Your task to perform on an android device: Go to network settings Image 0: 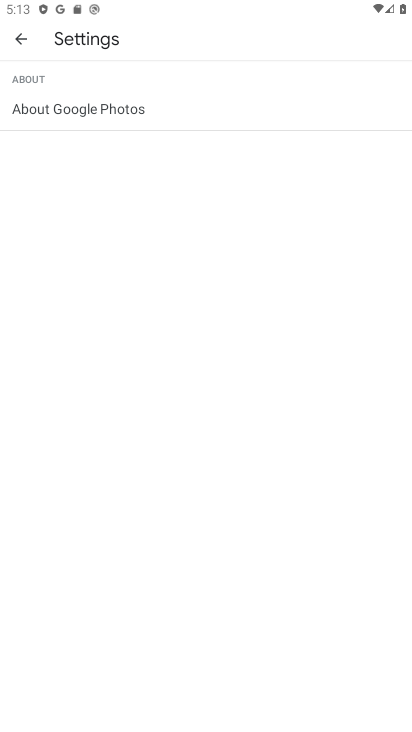
Step 0: press home button
Your task to perform on an android device: Go to network settings Image 1: 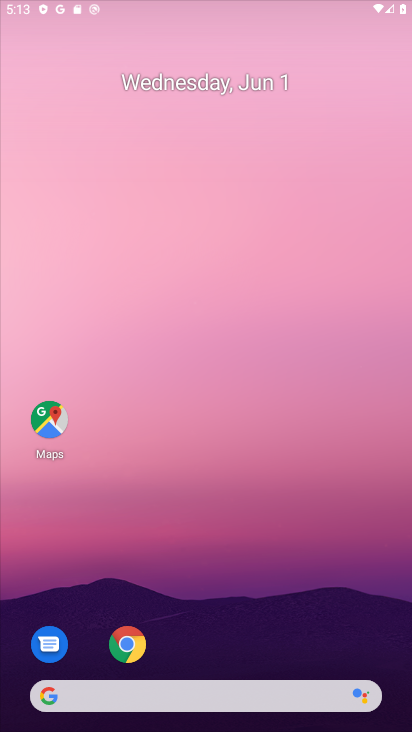
Step 1: drag from (341, 554) to (272, 0)
Your task to perform on an android device: Go to network settings Image 2: 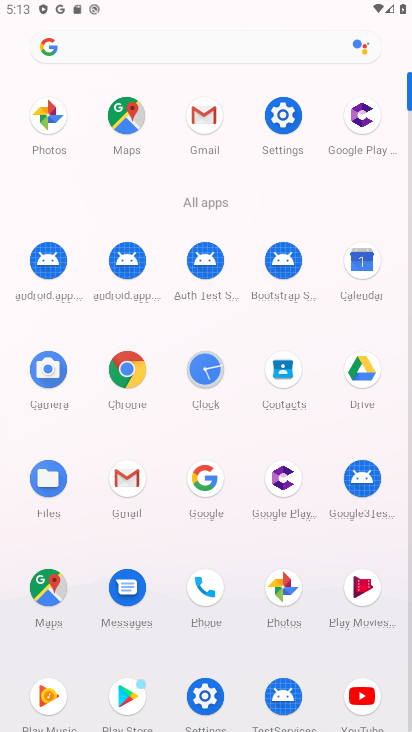
Step 2: click (276, 129)
Your task to perform on an android device: Go to network settings Image 3: 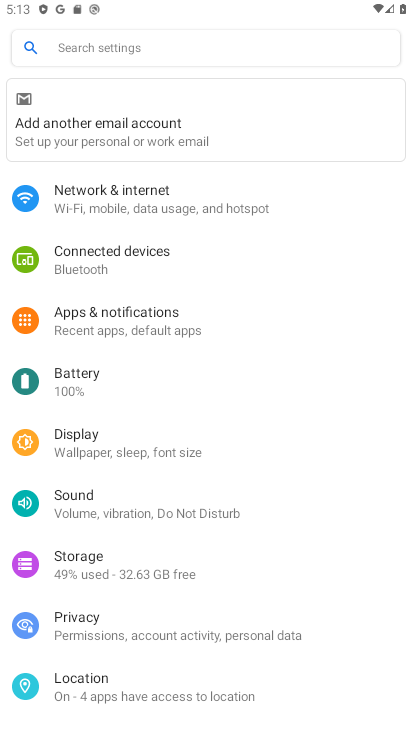
Step 3: click (153, 196)
Your task to perform on an android device: Go to network settings Image 4: 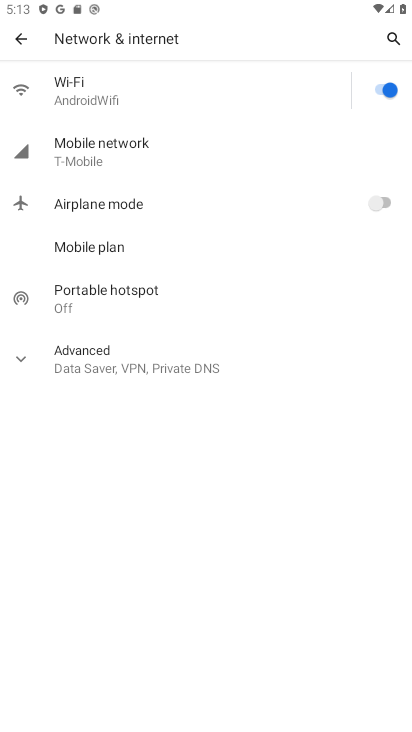
Step 4: task complete